Your task to perform on an android device: Open calendar and show me the third week of next month Image 0: 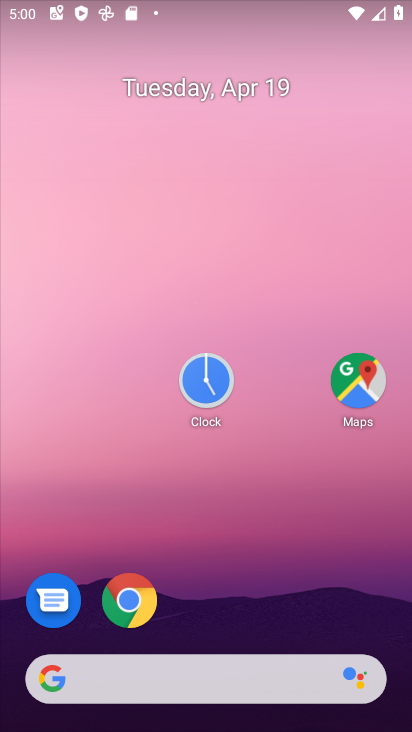
Step 0: drag from (213, 492) to (192, 172)
Your task to perform on an android device: Open calendar and show me the third week of next month Image 1: 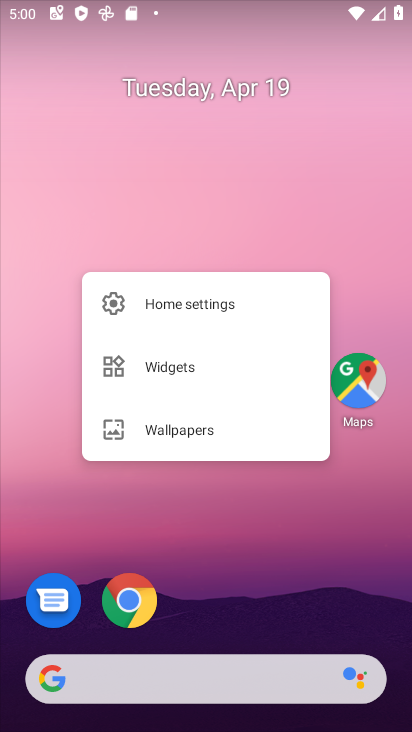
Step 1: click (314, 489)
Your task to perform on an android device: Open calendar and show me the third week of next month Image 2: 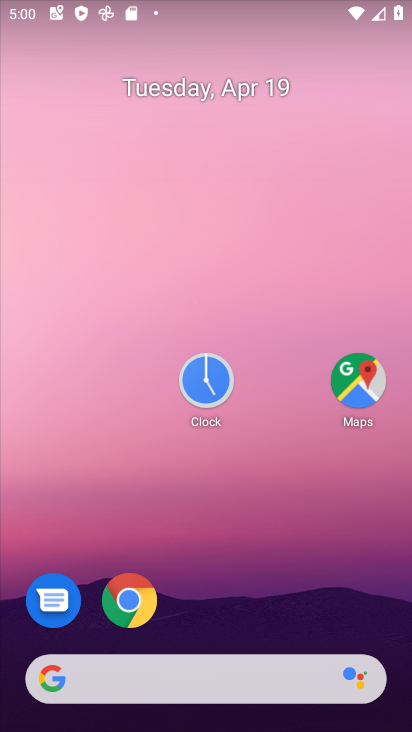
Step 2: drag from (286, 339) to (187, 4)
Your task to perform on an android device: Open calendar and show me the third week of next month Image 3: 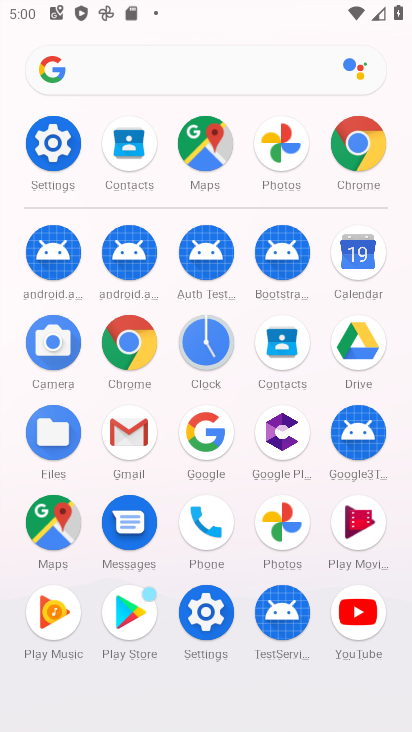
Step 3: click (364, 268)
Your task to perform on an android device: Open calendar and show me the third week of next month Image 4: 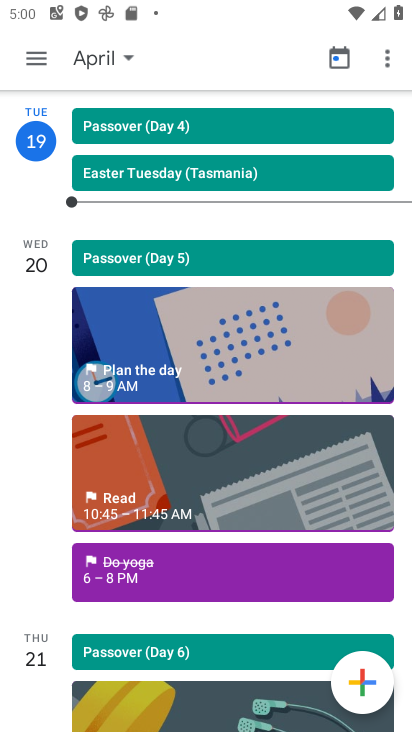
Step 4: click (117, 62)
Your task to perform on an android device: Open calendar and show me the third week of next month Image 5: 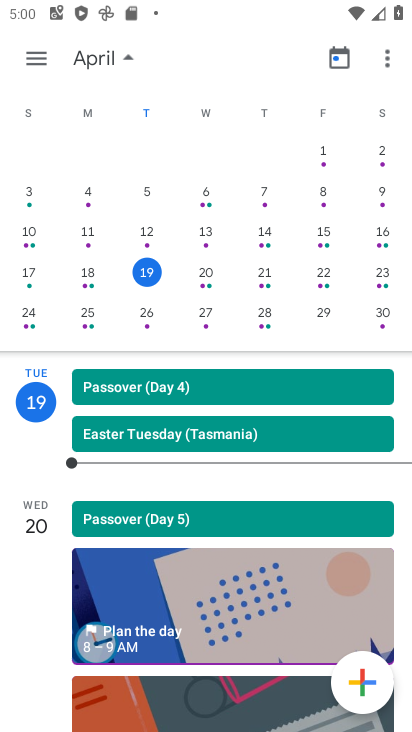
Step 5: click (122, 61)
Your task to perform on an android device: Open calendar and show me the third week of next month Image 6: 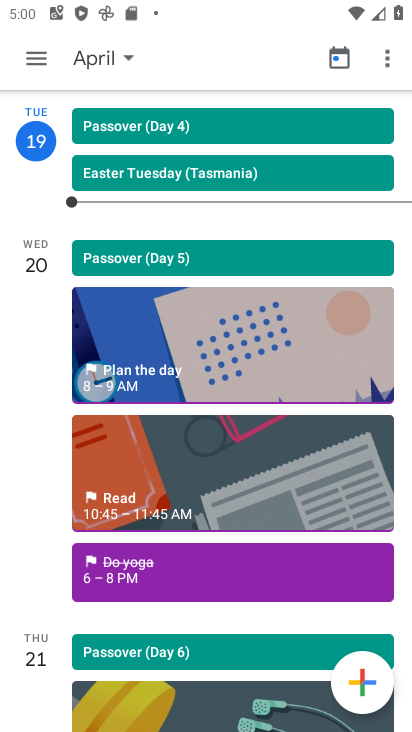
Step 6: drag from (221, 253) to (49, 164)
Your task to perform on an android device: Open calendar and show me the third week of next month Image 7: 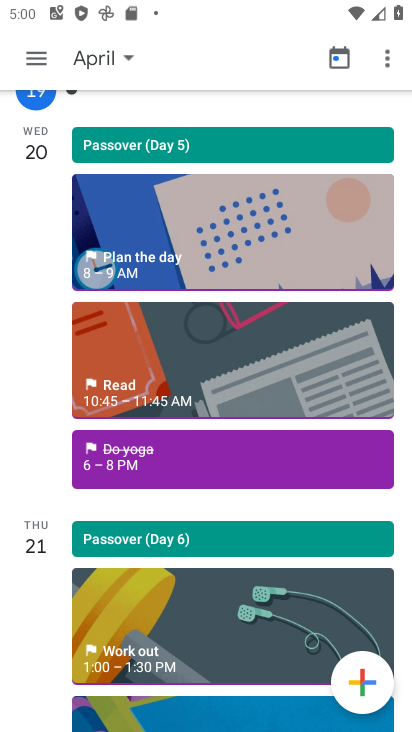
Step 7: click (122, 61)
Your task to perform on an android device: Open calendar and show me the third week of next month Image 8: 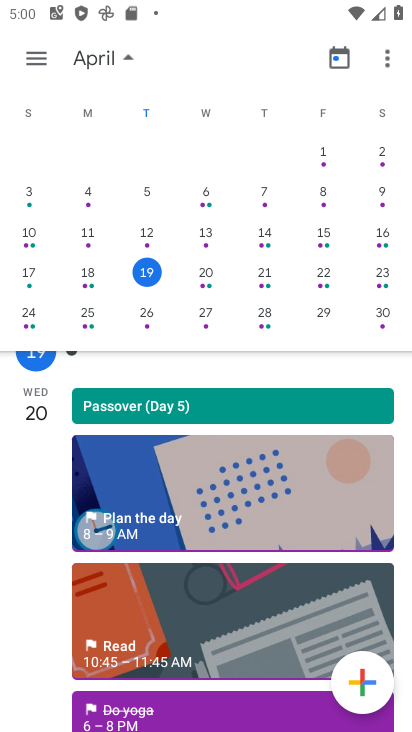
Step 8: click (131, 63)
Your task to perform on an android device: Open calendar and show me the third week of next month Image 9: 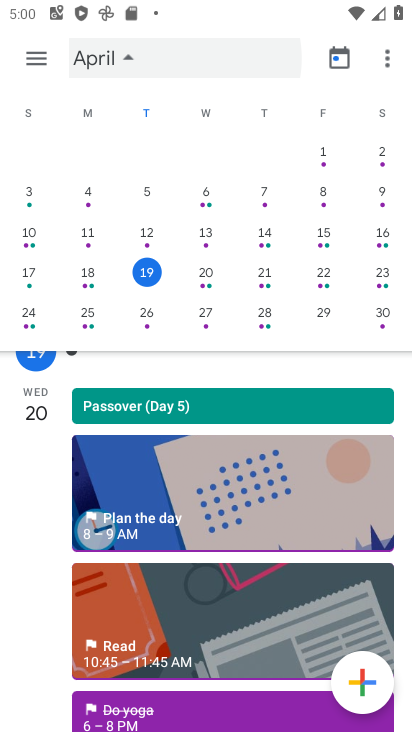
Step 9: drag from (254, 234) to (35, 263)
Your task to perform on an android device: Open calendar and show me the third week of next month Image 10: 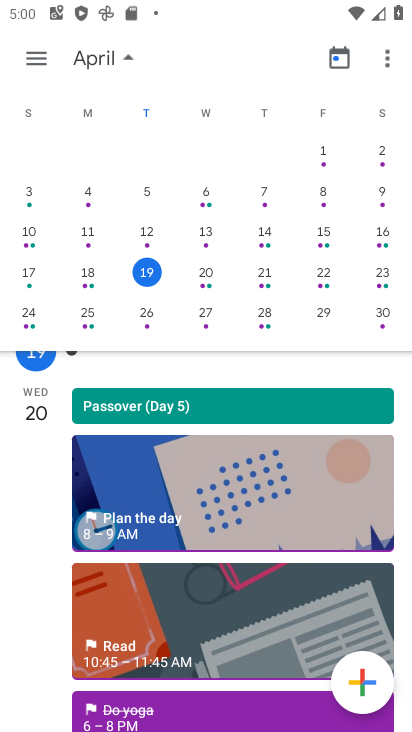
Step 10: drag from (185, 252) to (58, 234)
Your task to perform on an android device: Open calendar and show me the third week of next month Image 11: 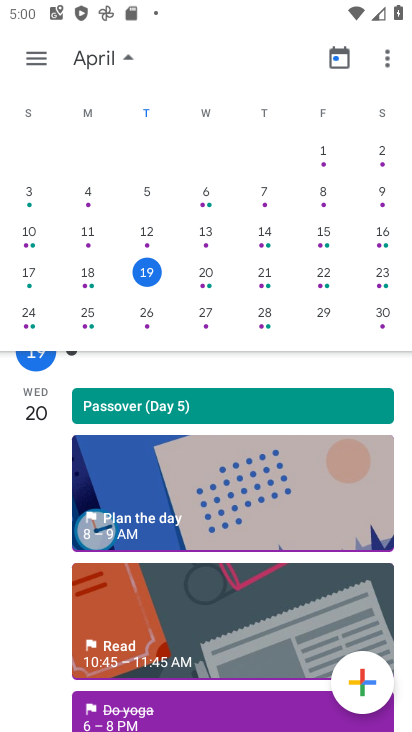
Step 11: click (127, 51)
Your task to perform on an android device: Open calendar and show me the third week of next month Image 12: 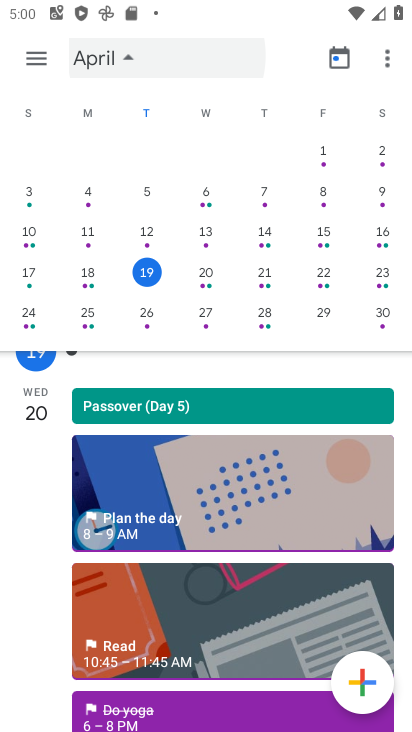
Step 12: drag from (189, 284) to (24, 217)
Your task to perform on an android device: Open calendar and show me the third week of next month Image 13: 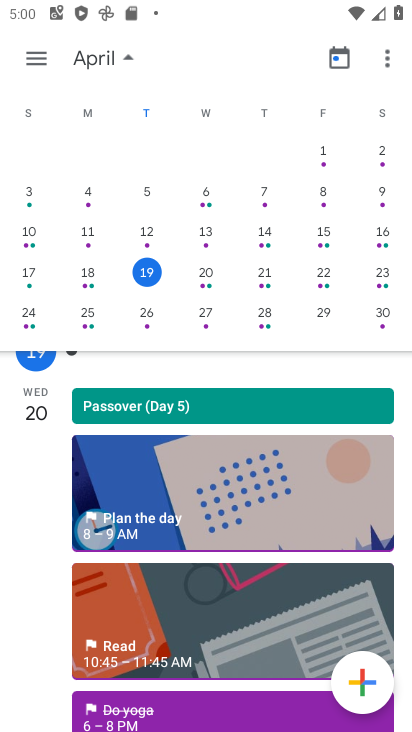
Step 13: drag from (28, 320) to (24, 240)
Your task to perform on an android device: Open calendar and show me the third week of next month Image 14: 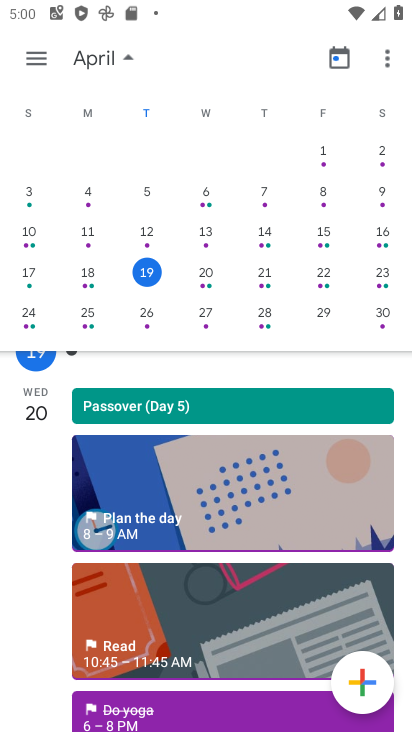
Step 14: click (123, 59)
Your task to perform on an android device: Open calendar and show me the third week of next month Image 15: 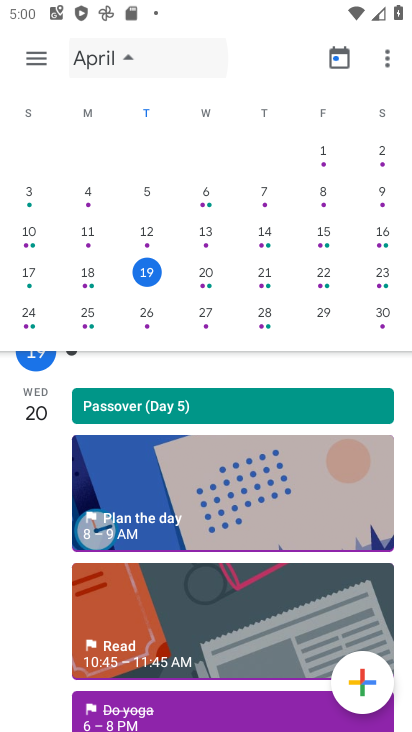
Step 15: drag from (222, 285) to (19, 302)
Your task to perform on an android device: Open calendar and show me the third week of next month Image 16: 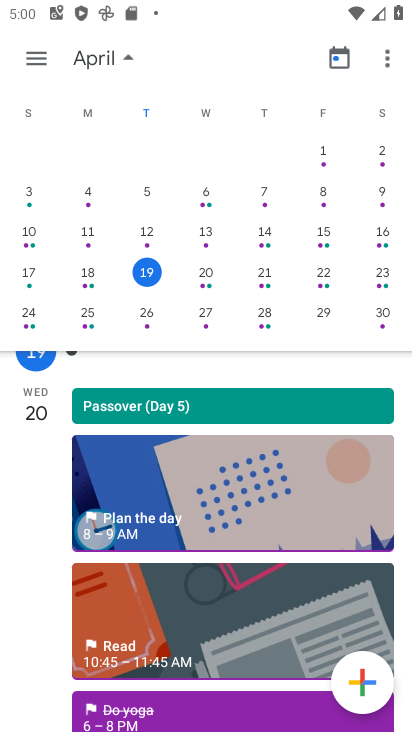
Step 16: drag from (234, 284) to (55, 248)
Your task to perform on an android device: Open calendar and show me the third week of next month Image 17: 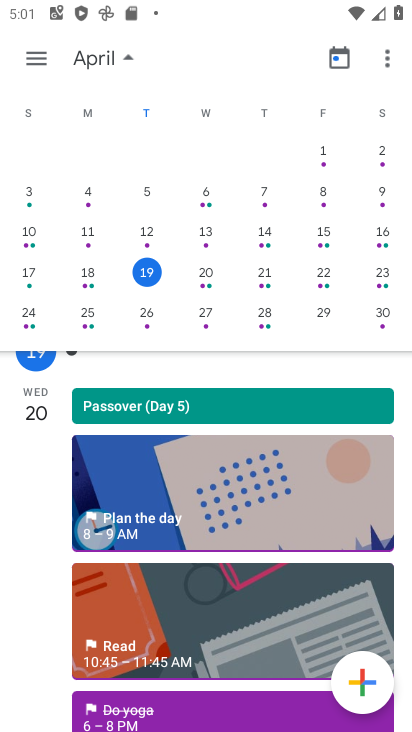
Step 17: click (132, 59)
Your task to perform on an android device: Open calendar and show me the third week of next month Image 18: 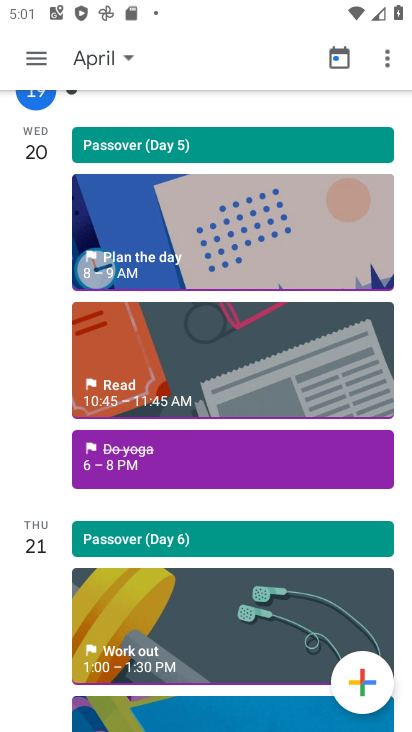
Step 18: click (128, 54)
Your task to perform on an android device: Open calendar and show me the third week of next month Image 19: 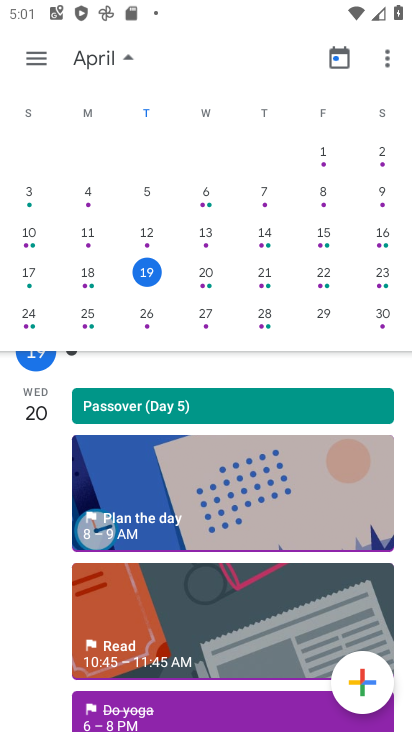
Step 19: drag from (253, 270) to (23, 180)
Your task to perform on an android device: Open calendar and show me the third week of next month Image 20: 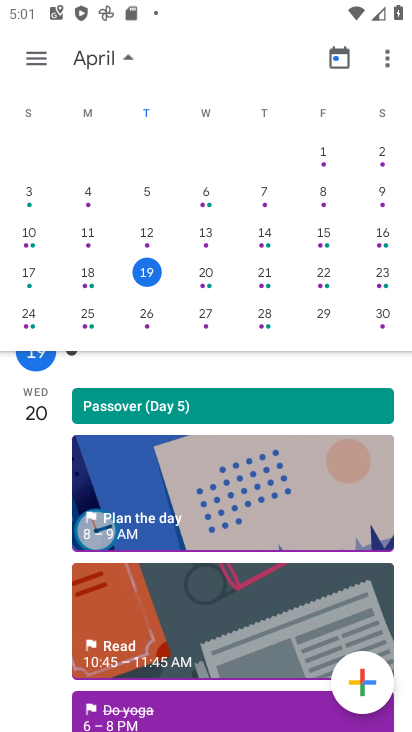
Step 20: drag from (290, 250) to (4, 286)
Your task to perform on an android device: Open calendar and show me the third week of next month Image 21: 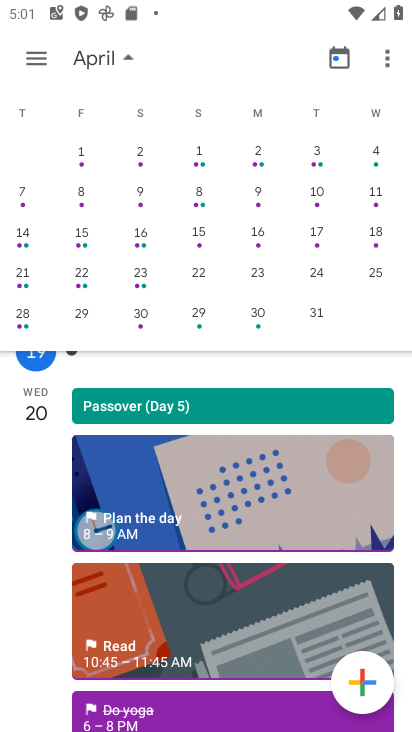
Step 21: drag from (221, 264) to (10, 285)
Your task to perform on an android device: Open calendar and show me the third week of next month Image 22: 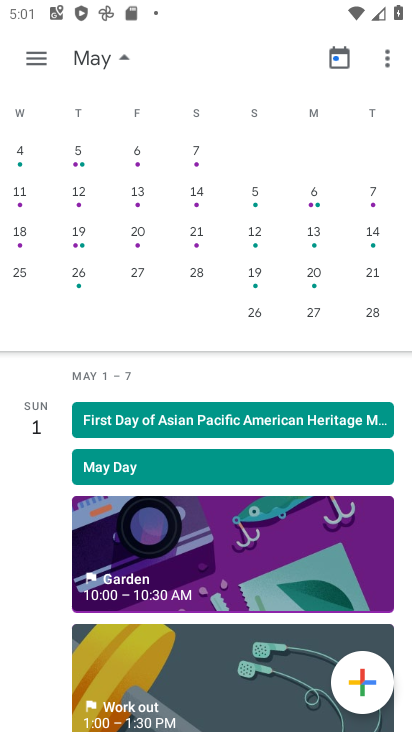
Step 22: click (4, 259)
Your task to perform on an android device: Open calendar and show me the third week of next month Image 23: 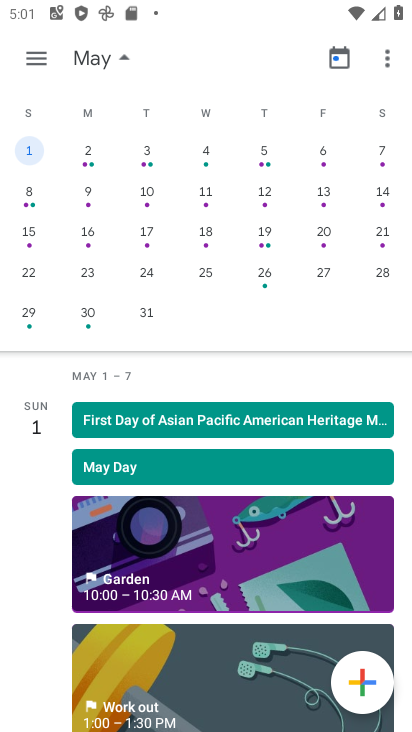
Step 23: task complete